Your task to perform on an android device: What is the recent news? Image 0: 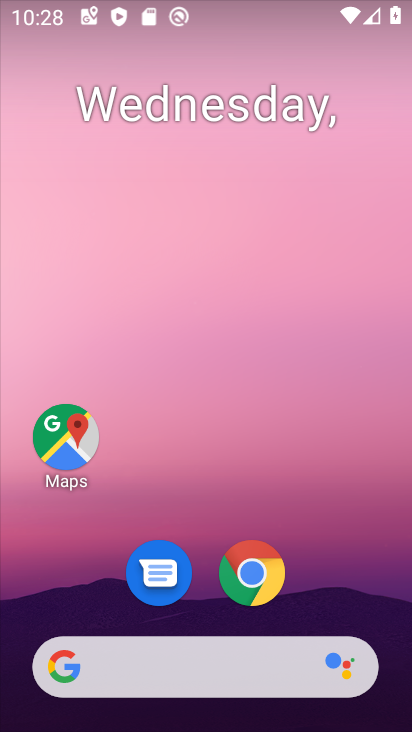
Step 0: drag from (0, 263) to (409, 358)
Your task to perform on an android device: What is the recent news? Image 1: 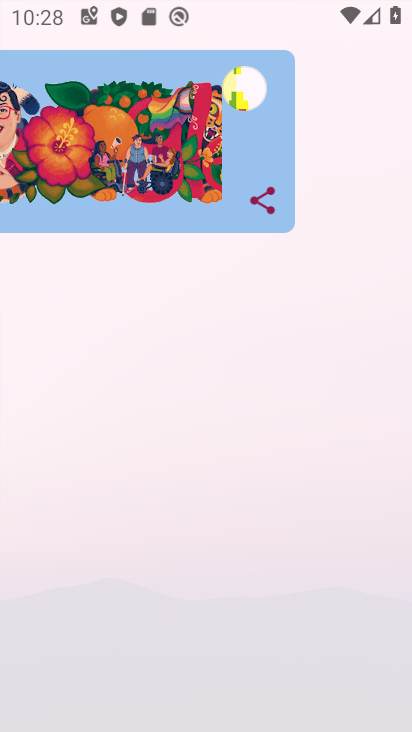
Step 1: task complete